Your task to perform on an android device: turn pop-ups on in chrome Image 0: 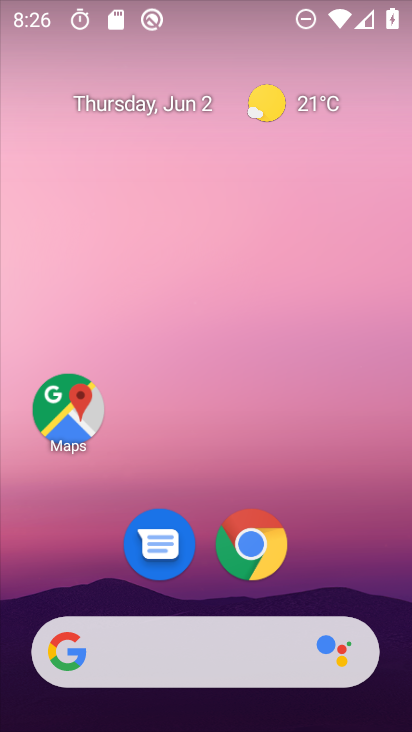
Step 0: click (274, 538)
Your task to perform on an android device: turn pop-ups on in chrome Image 1: 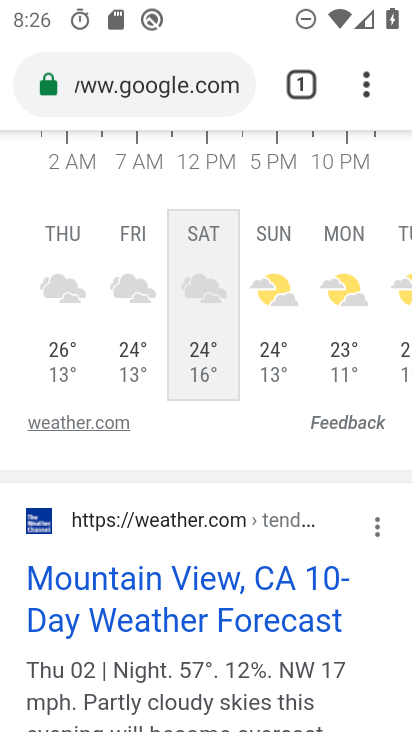
Step 1: click (361, 87)
Your task to perform on an android device: turn pop-ups on in chrome Image 2: 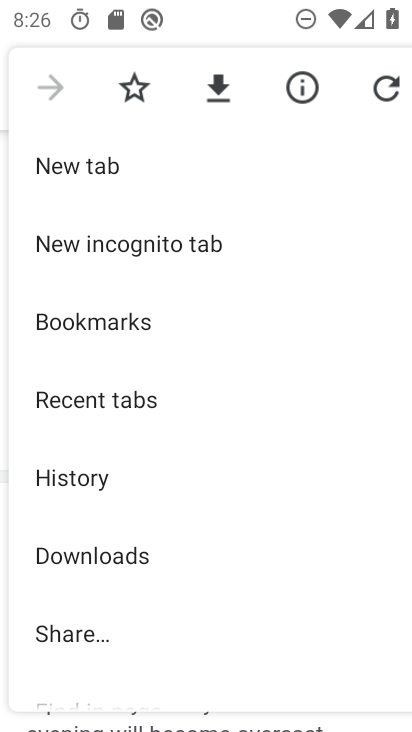
Step 2: drag from (204, 672) to (205, 206)
Your task to perform on an android device: turn pop-ups on in chrome Image 3: 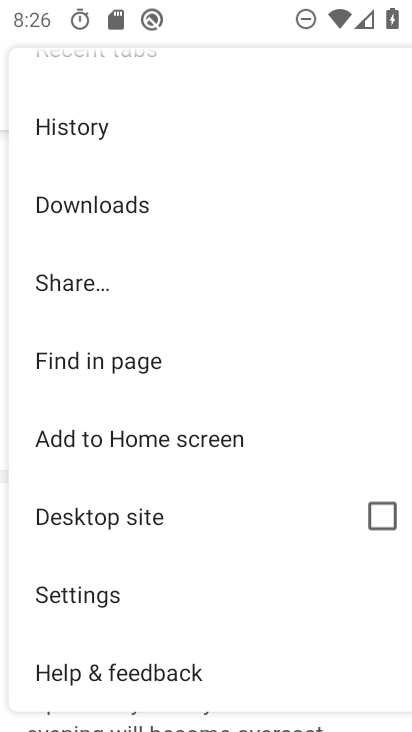
Step 3: click (233, 627)
Your task to perform on an android device: turn pop-ups on in chrome Image 4: 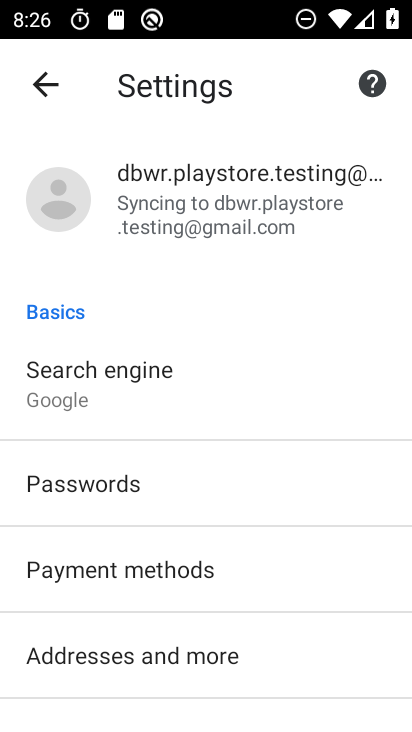
Step 4: drag from (230, 676) to (207, 99)
Your task to perform on an android device: turn pop-ups on in chrome Image 5: 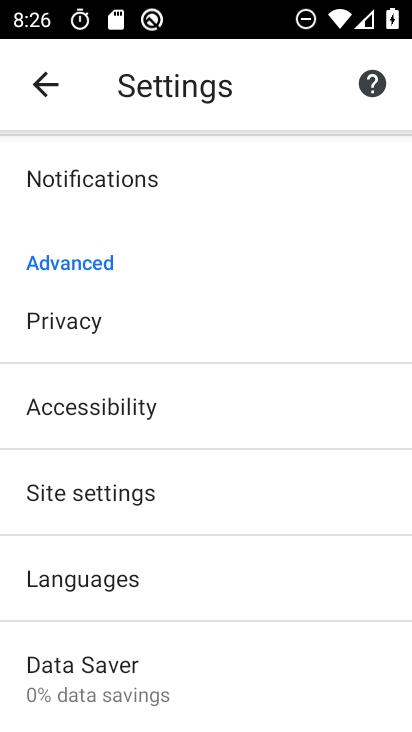
Step 5: click (226, 503)
Your task to perform on an android device: turn pop-ups on in chrome Image 6: 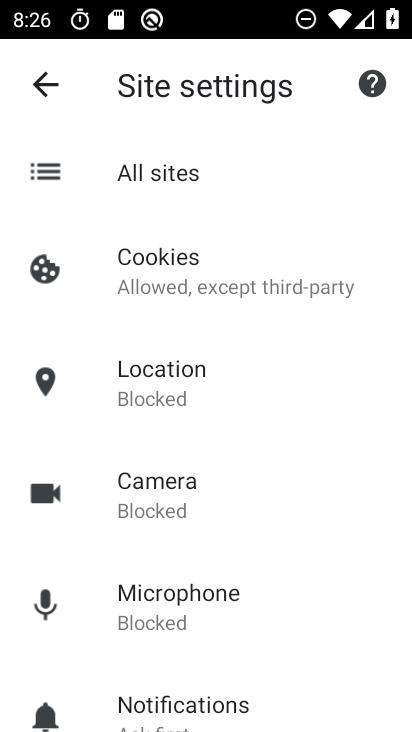
Step 6: drag from (248, 637) to (254, 252)
Your task to perform on an android device: turn pop-ups on in chrome Image 7: 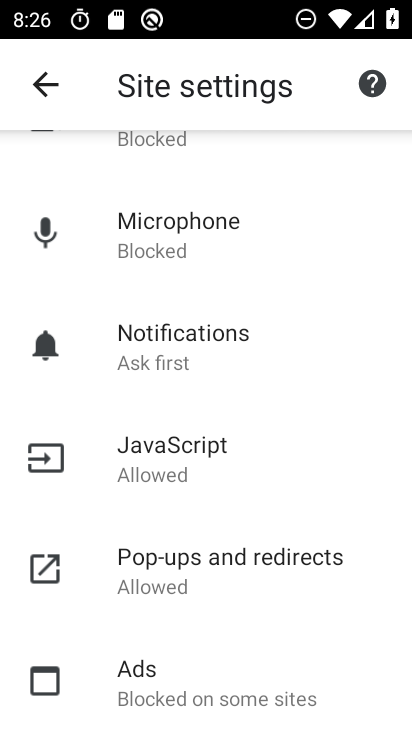
Step 7: click (255, 555)
Your task to perform on an android device: turn pop-ups on in chrome Image 8: 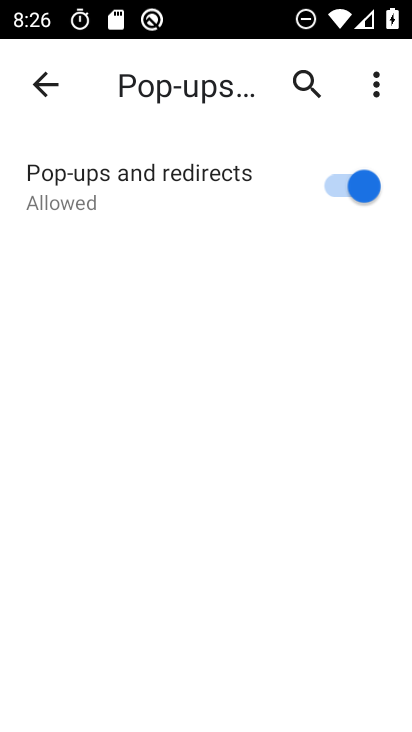
Step 8: task complete